Your task to perform on an android device: Open Reddit.com Image 0: 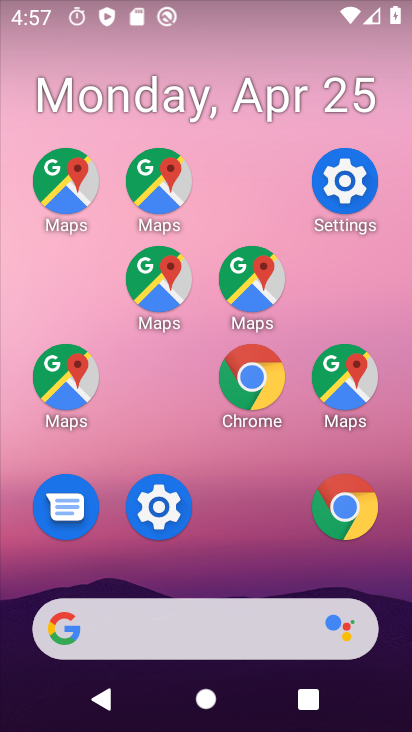
Step 0: drag from (258, 688) to (191, 233)
Your task to perform on an android device: Open Reddit.com Image 1: 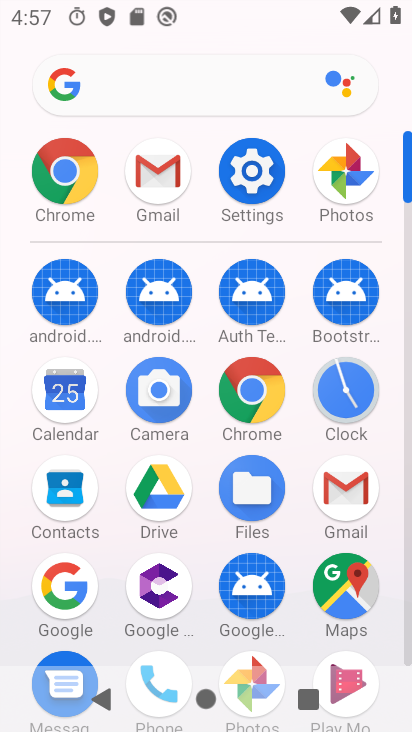
Step 1: click (246, 378)
Your task to perform on an android device: Open Reddit.com Image 2: 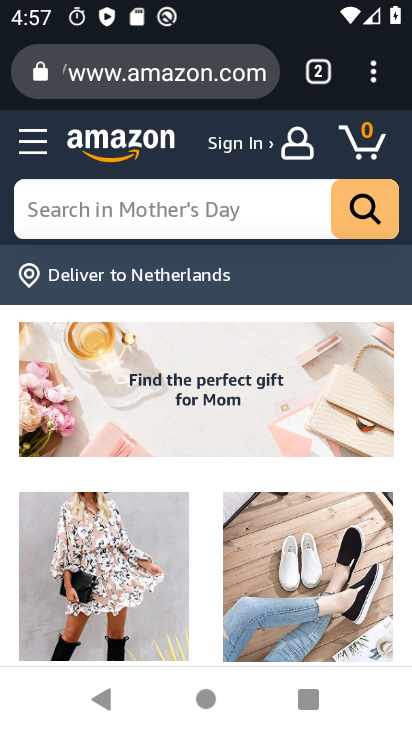
Step 2: drag from (375, 84) to (115, 245)
Your task to perform on an android device: Open Reddit.com Image 3: 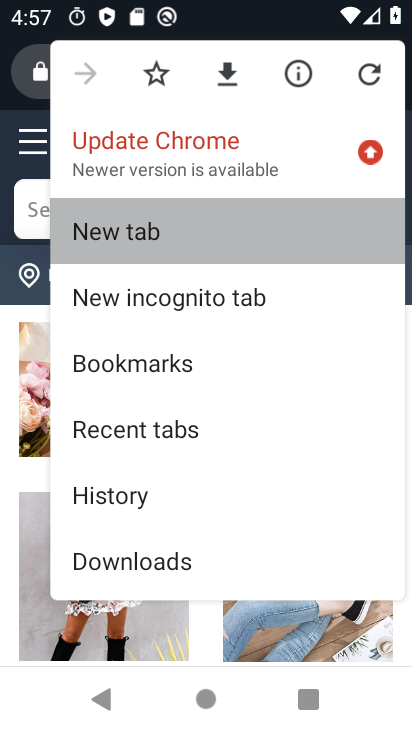
Step 3: click (105, 241)
Your task to perform on an android device: Open Reddit.com Image 4: 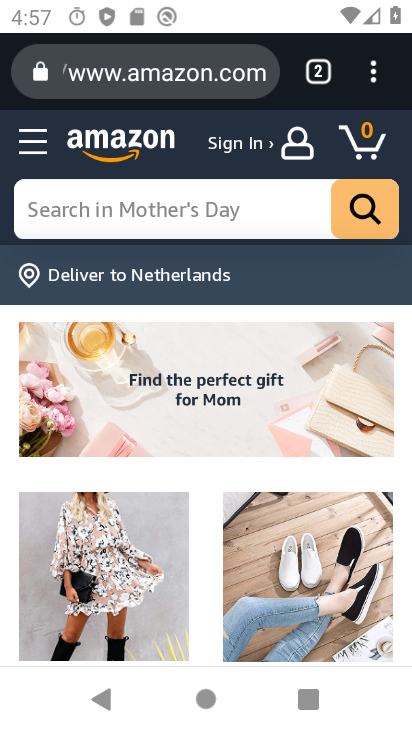
Step 4: click (110, 236)
Your task to perform on an android device: Open Reddit.com Image 5: 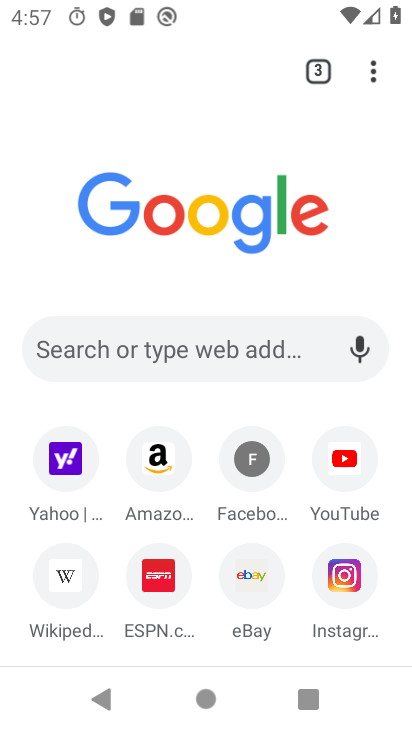
Step 5: click (128, 220)
Your task to perform on an android device: Open Reddit.com Image 6: 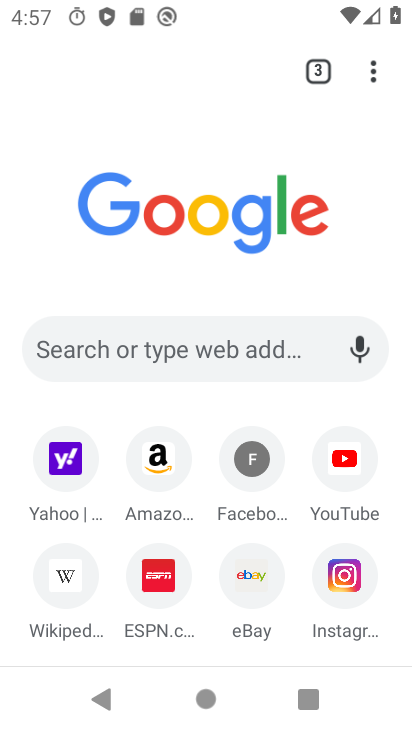
Step 6: click (113, 339)
Your task to perform on an android device: Open Reddit.com Image 7: 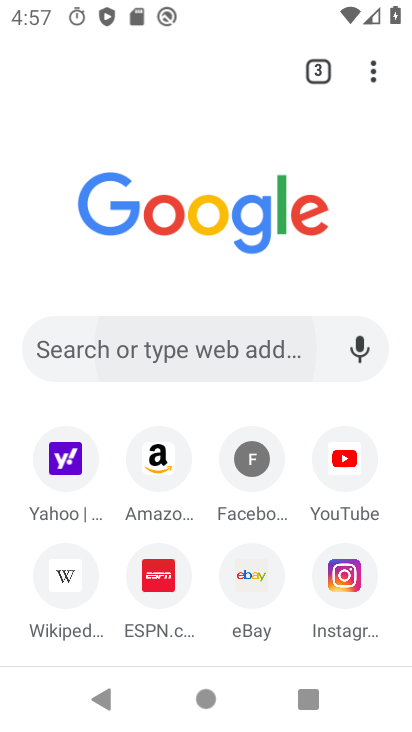
Step 7: click (113, 339)
Your task to perform on an android device: Open Reddit.com Image 8: 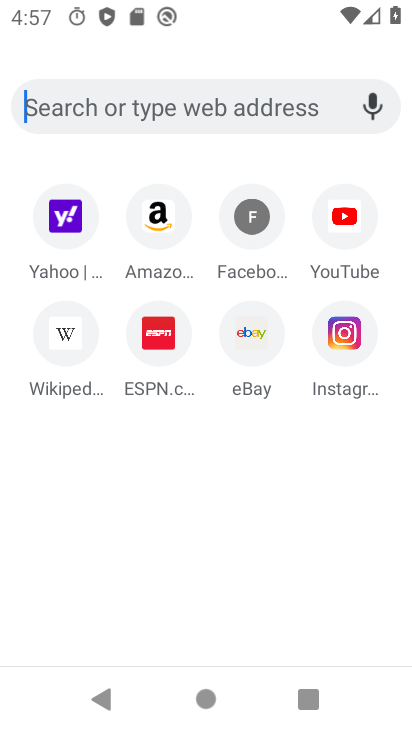
Step 8: click (114, 334)
Your task to perform on an android device: Open Reddit.com Image 9: 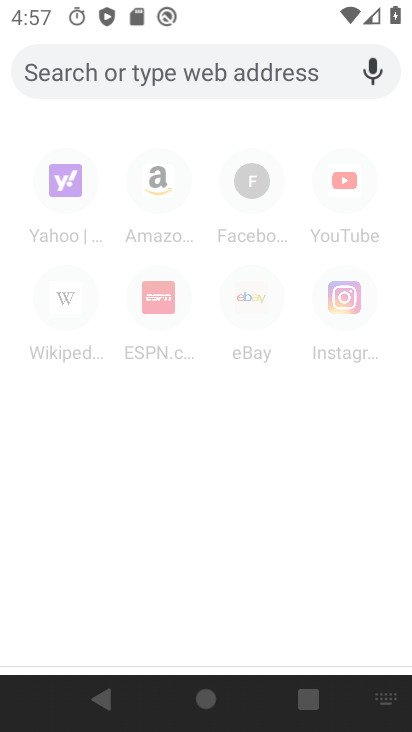
Step 9: click (112, 328)
Your task to perform on an android device: Open Reddit.com Image 10: 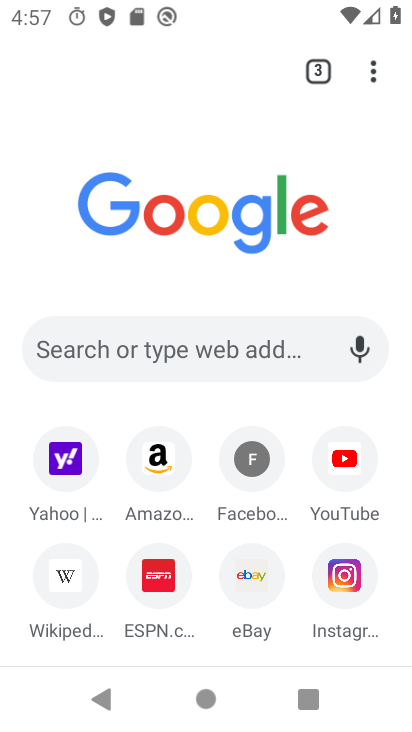
Step 10: click (103, 346)
Your task to perform on an android device: Open Reddit.com Image 11: 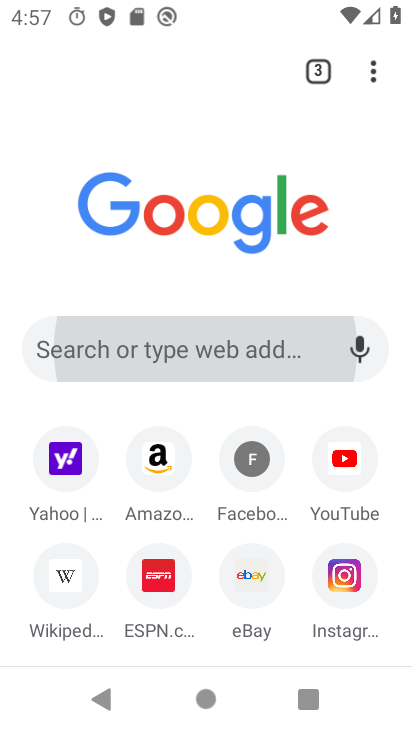
Step 11: click (101, 339)
Your task to perform on an android device: Open Reddit.com Image 12: 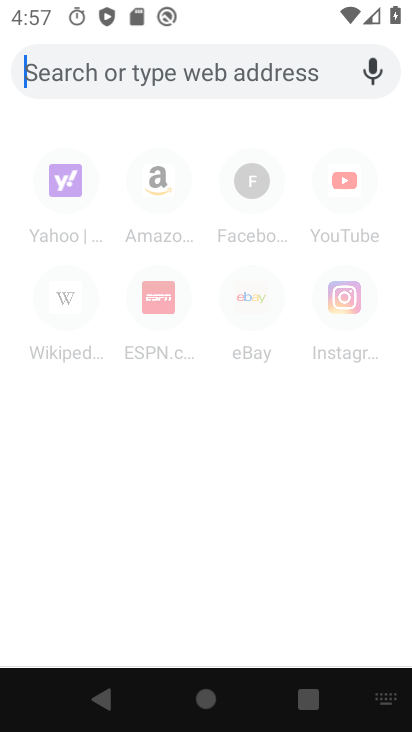
Step 12: click (109, 339)
Your task to perform on an android device: Open Reddit.com Image 13: 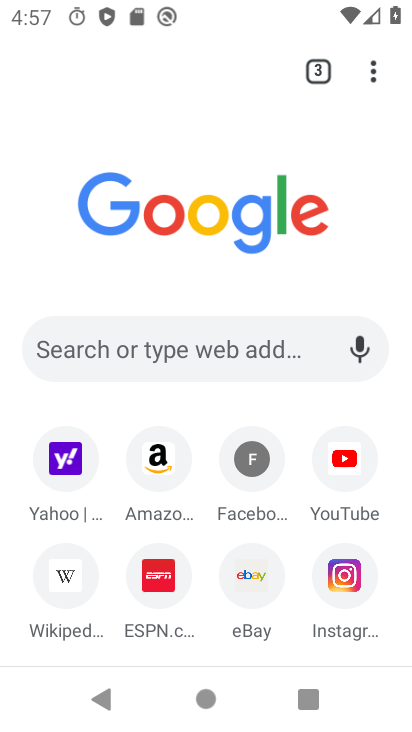
Step 13: click (86, 341)
Your task to perform on an android device: Open Reddit.com Image 14: 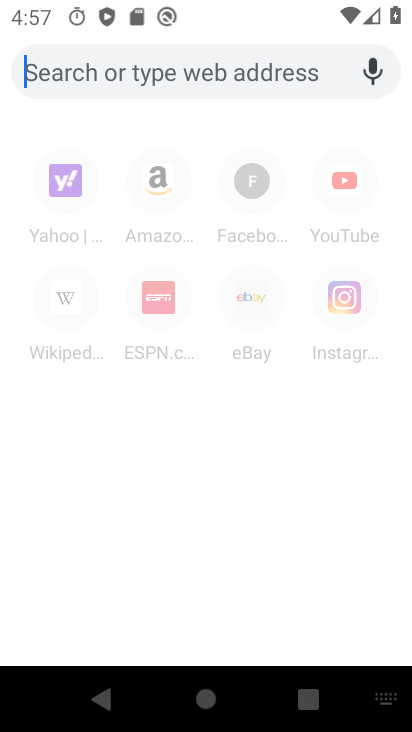
Step 14: type "www.reddit.com"
Your task to perform on an android device: Open Reddit.com Image 15: 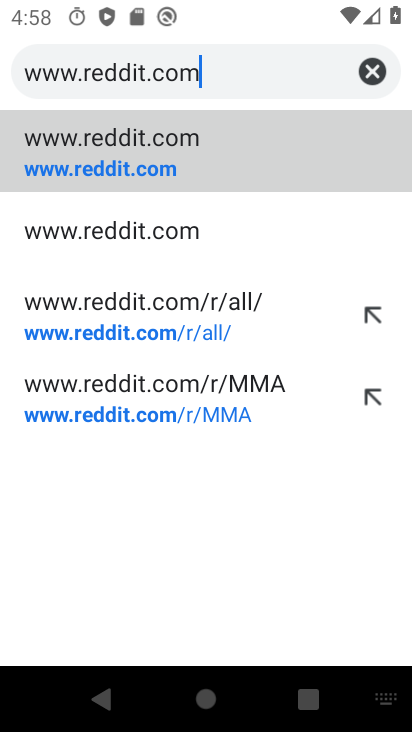
Step 15: click (132, 154)
Your task to perform on an android device: Open Reddit.com Image 16: 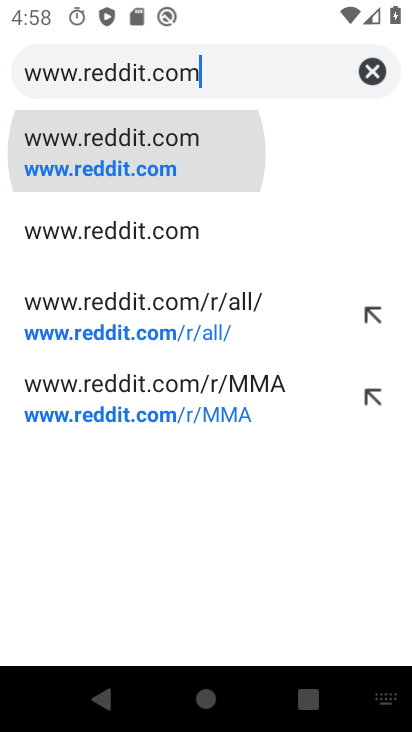
Step 16: click (132, 154)
Your task to perform on an android device: Open Reddit.com Image 17: 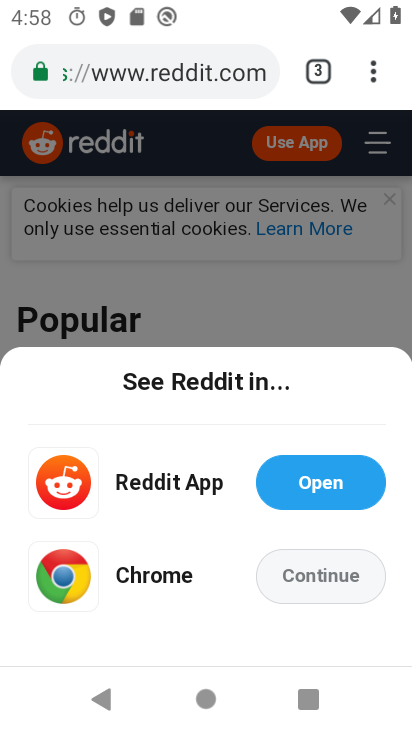
Step 17: task complete